Your task to perform on an android device: turn on javascript in the chrome app Image 0: 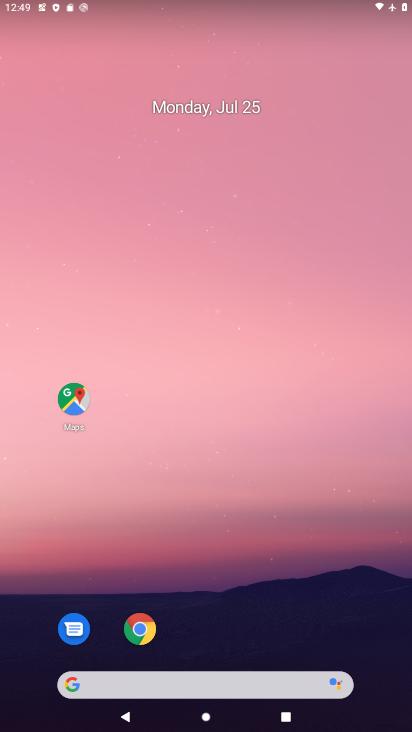
Step 0: click (150, 644)
Your task to perform on an android device: turn on javascript in the chrome app Image 1: 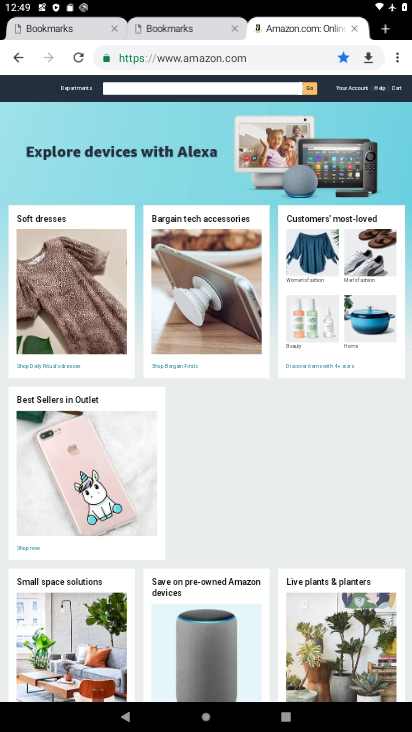
Step 1: click (390, 52)
Your task to perform on an android device: turn on javascript in the chrome app Image 2: 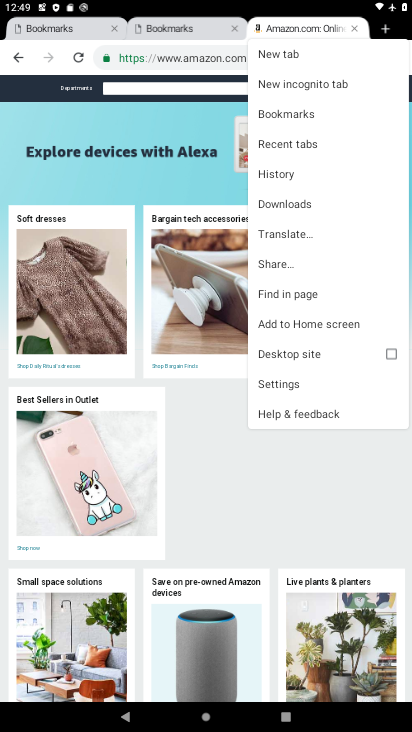
Step 2: click (299, 384)
Your task to perform on an android device: turn on javascript in the chrome app Image 3: 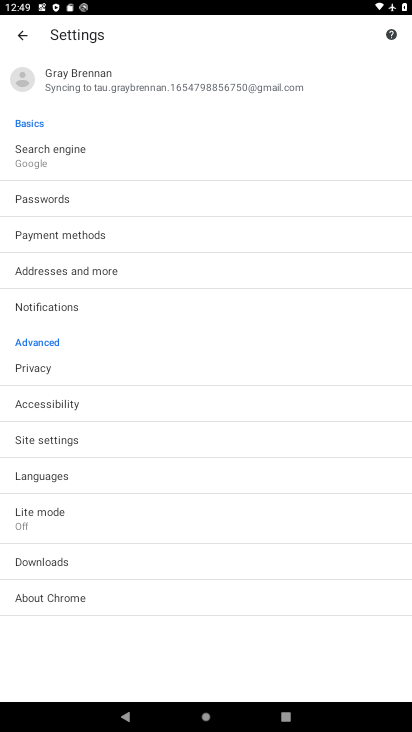
Step 3: click (169, 444)
Your task to perform on an android device: turn on javascript in the chrome app Image 4: 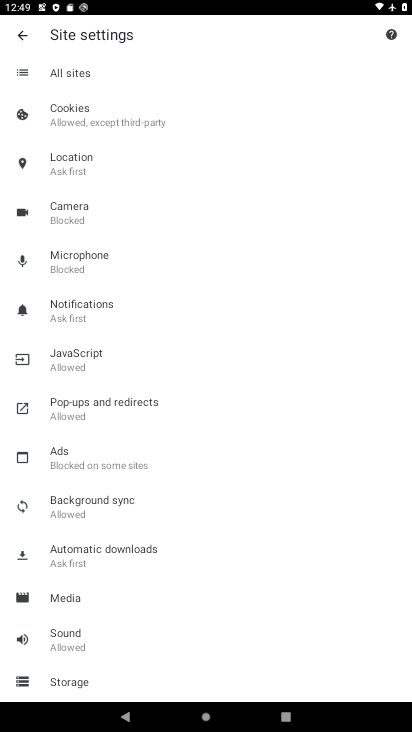
Step 4: click (220, 360)
Your task to perform on an android device: turn on javascript in the chrome app Image 5: 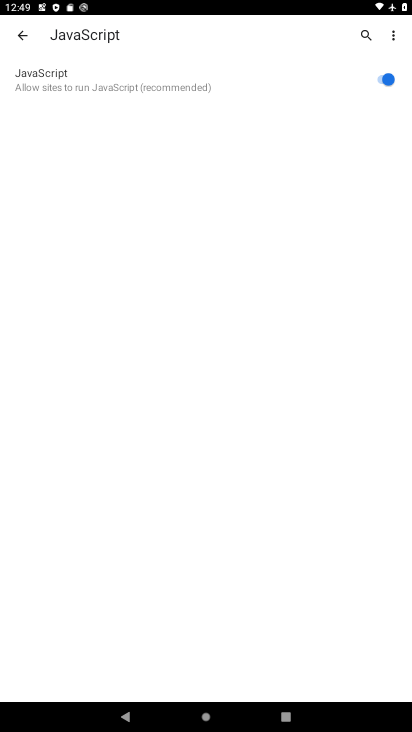
Step 5: click (388, 92)
Your task to perform on an android device: turn on javascript in the chrome app Image 6: 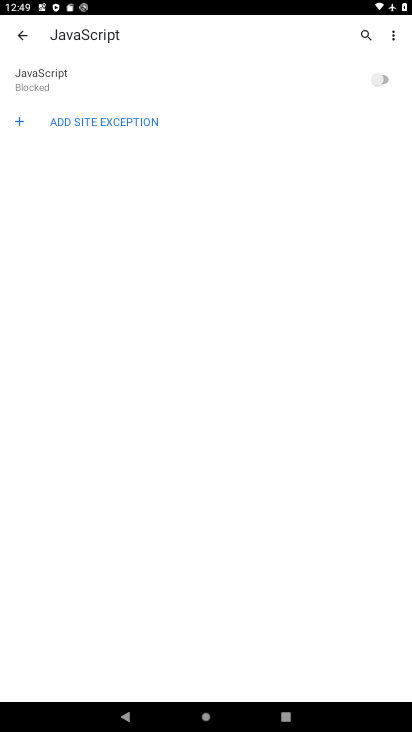
Step 6: task complete